Your task to perform on an android device: Turn off the flashlight Image 0: 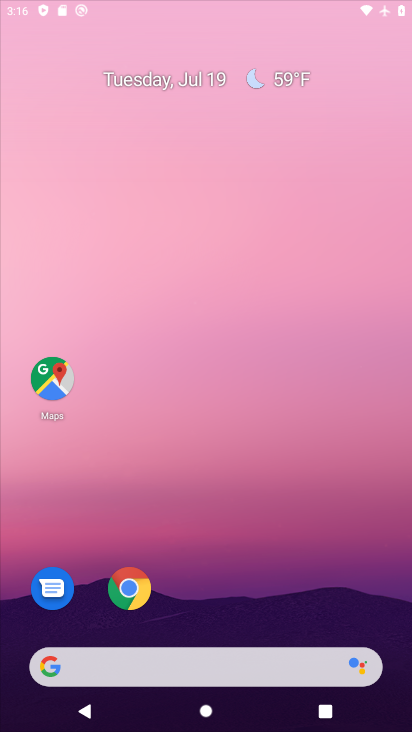
Step 0: press home button
Your task to perform on an android device: Turn off the flashlight Image 1: 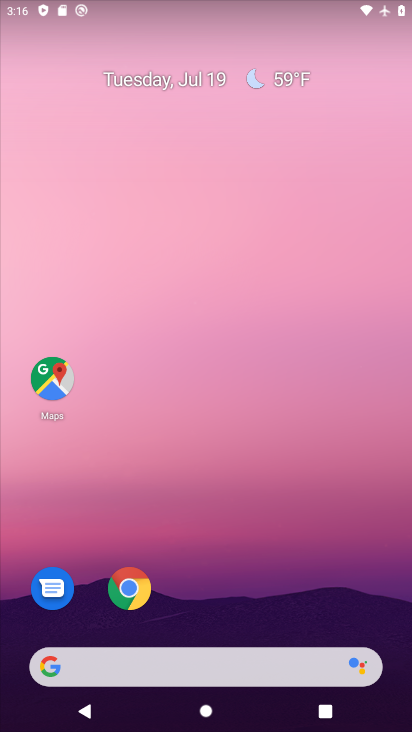
Step 1: task complete